Your task to perform on an android device: How big is a blue whale? Image 0: 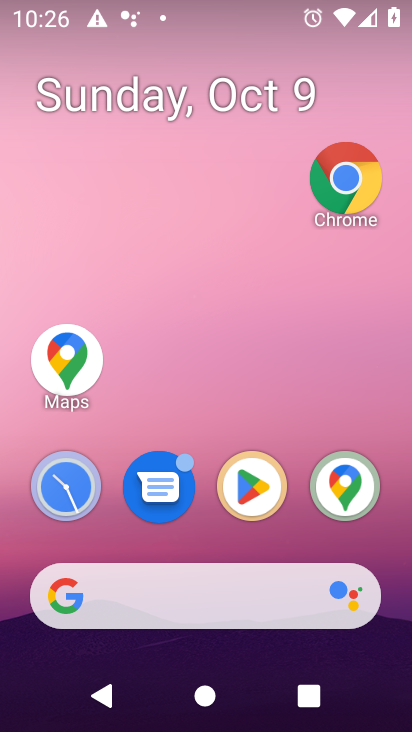
Step 0: drag from (254, 570) to (273, 362)
Your task to perform on an android device: How big is a blue whale? Image 1: 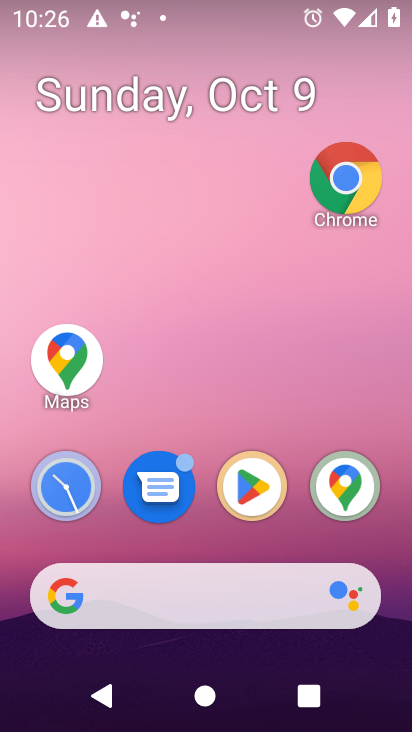
Step 1: drag from (207, 643) to (235, 414)
Your task to perform on an android device: How big is a blue whale? Image 2: 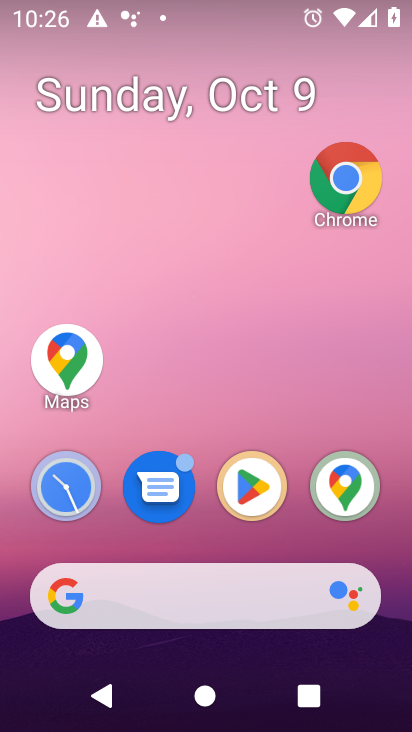
Step 2: drag from (226, 555) to (196, 92)
Your task to perform on an android device: How big is a blue whale? Image 3: 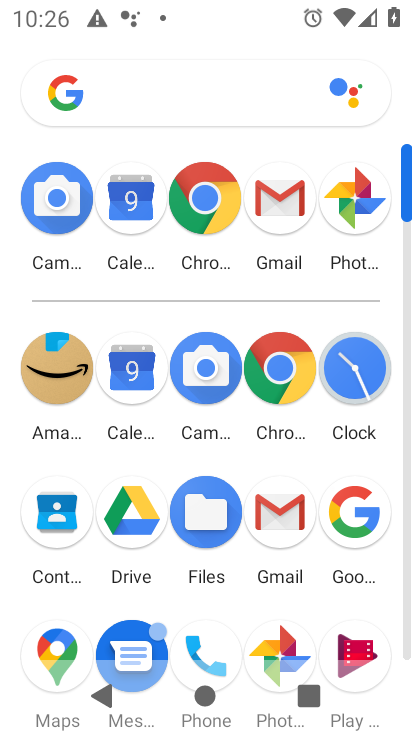
Step 3: click (353, 527)
Your task to perform on an android device: How big is a blue whale? Image 4: 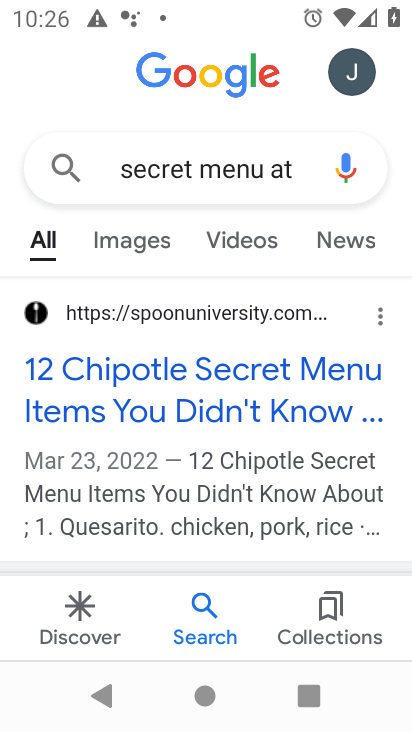
Step 4: click (280, 172)
Your task to perform on an android device: How big is a blue whale? Image 5: 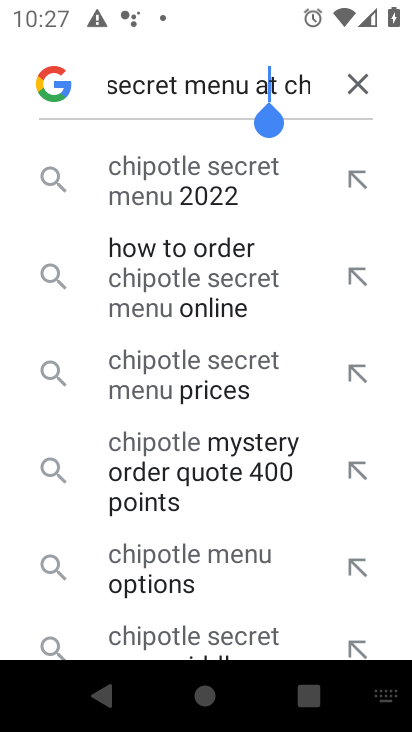
Step 5: click (360, 89)
Your task to perform on an android device: How big is a blue whale? Image 6: 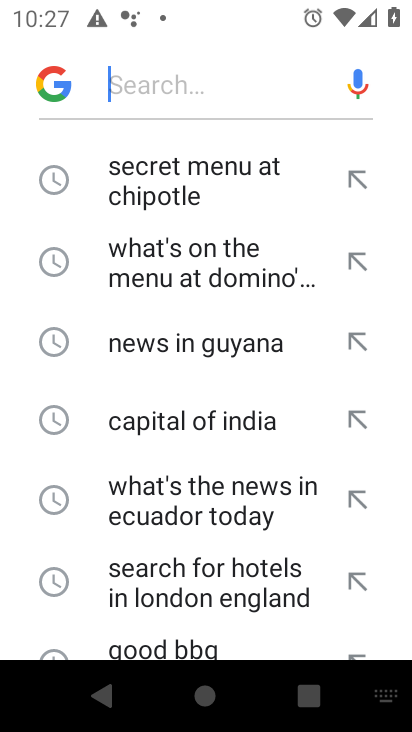
Step 6: type "How big is a blue whale?"
Your task to perform on an android device: How big is a blue whale? Image 7: 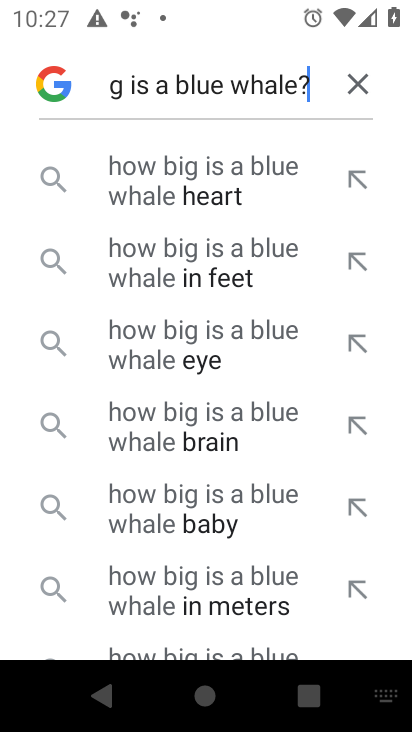
Step 7: drag from (288, 476) to (294, 147)
Your task to perform on an android device: How big is a blue whale? Image 8: 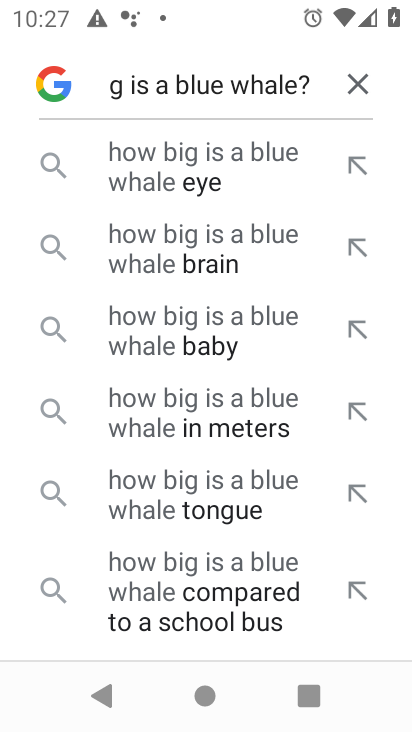
Step 8: click (226, 430)
Your task to perform on an android device: How big is a blue whale? Image 9: 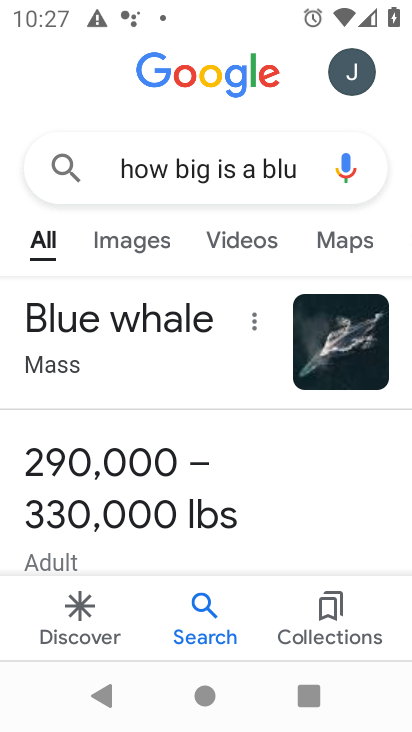
Step 9: task complete